Your task to perform on an android device: Open accessibility settings Image 0: 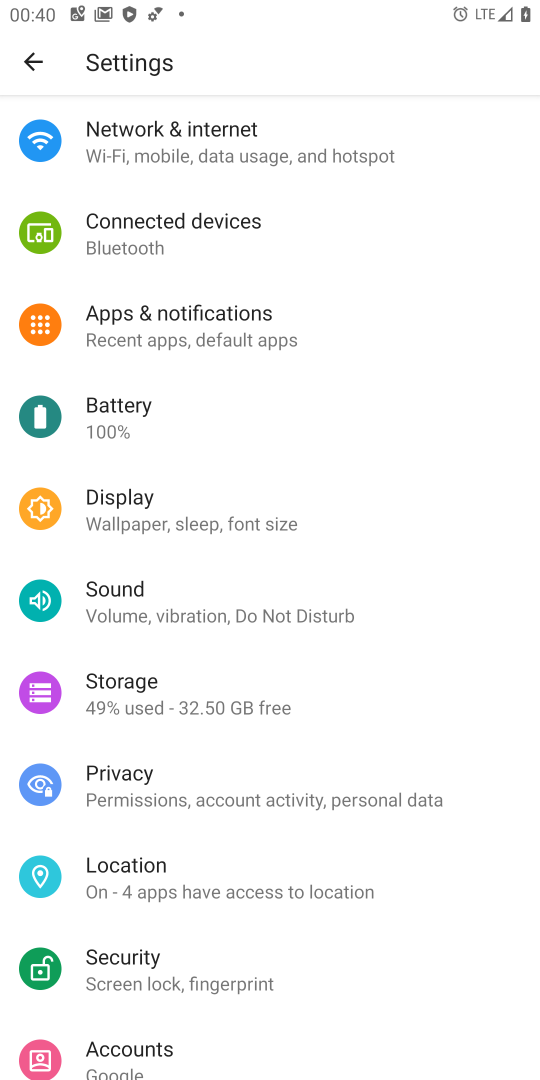
Step 0: drag from (201, 981) to (383, 125)
Your task to perform on an android device: Open accessibility settings Image 1: 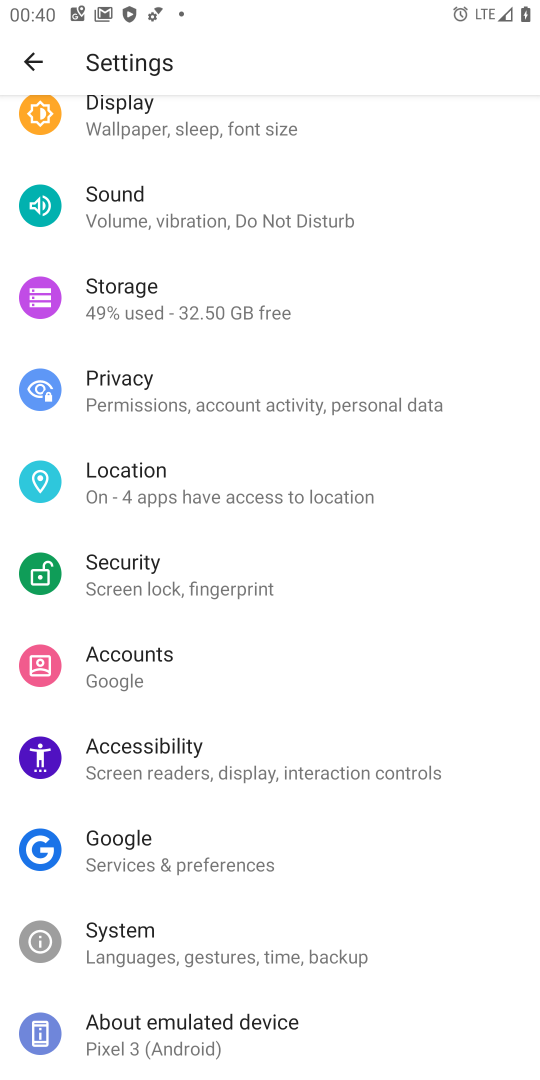
Step 1: click (203, 807)
Your task to perform on an android device: Open accessibility settings Image 2: 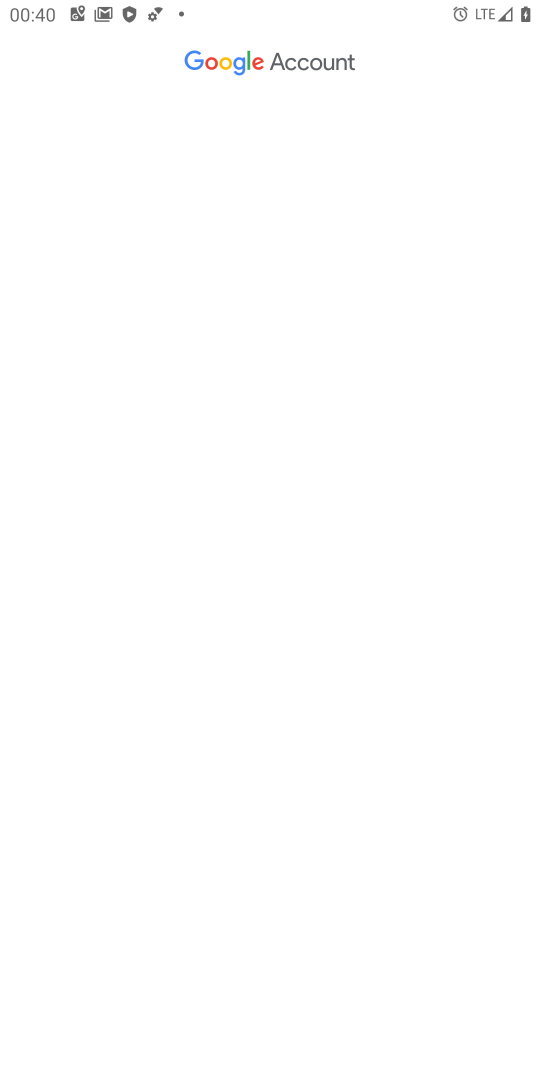
Step 2: press back button
Your task to perform on an android device: Open accessibility settings Image 3: 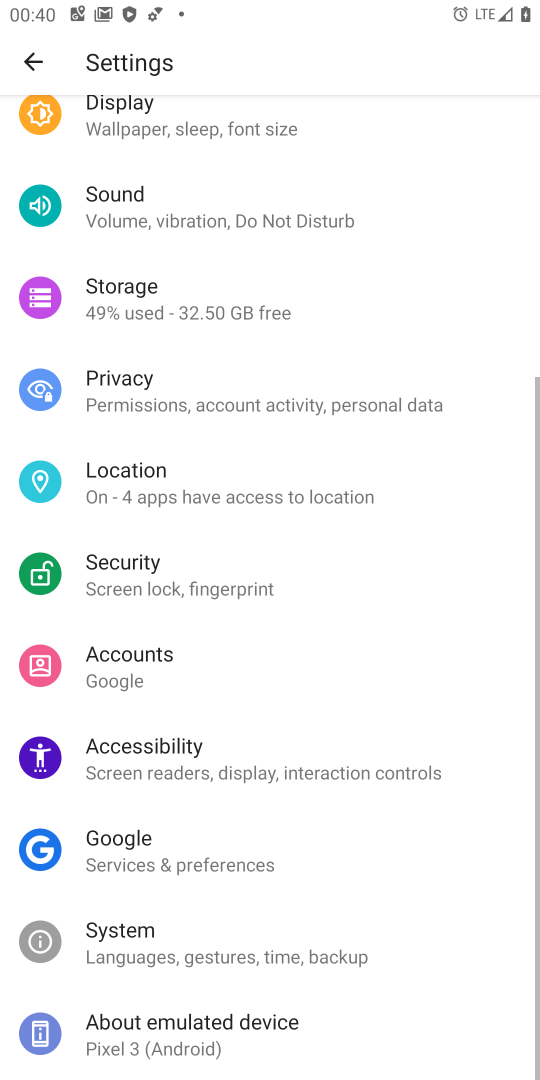
Step 3: click (143, 756)
Your task to perform on an android device: Open accessibility settings Image 4: 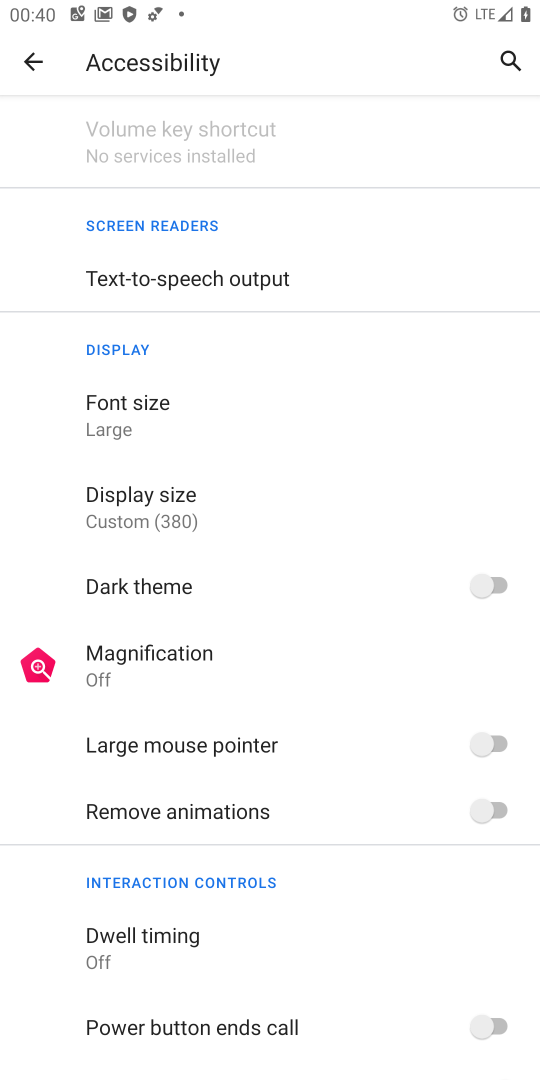
Step 4: task complete